Your task to perform on an android device: see creations saved in the google photos Image 0: 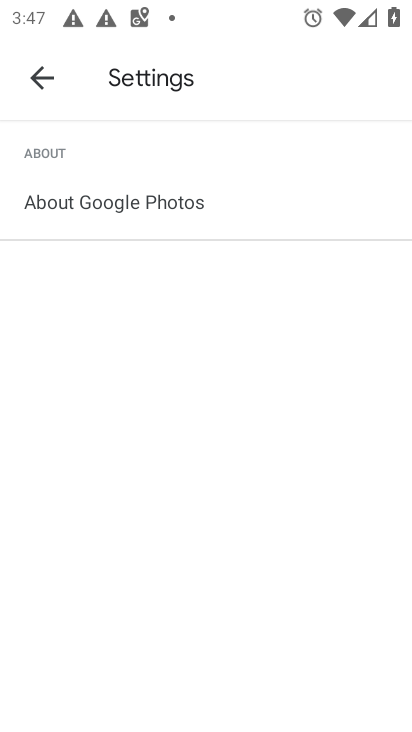
Step 0: press home button
Your task to perform on an android device: see creations saved in the google photos Image 1: 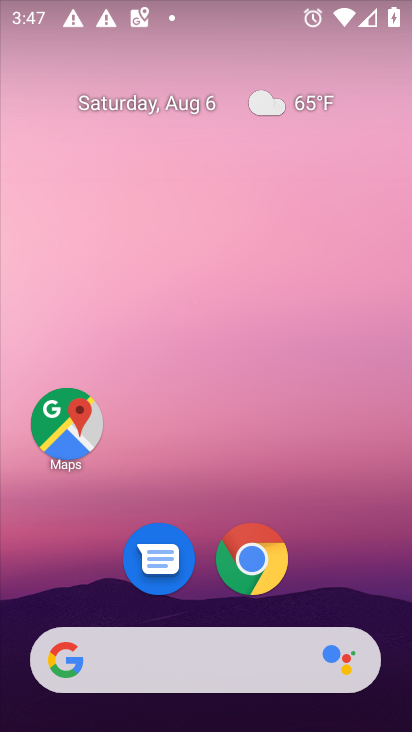
Step 1: drag from (337, 559) to (322, 46)
Your task to perform on an android device: see creations saved in the google photos Image 2: 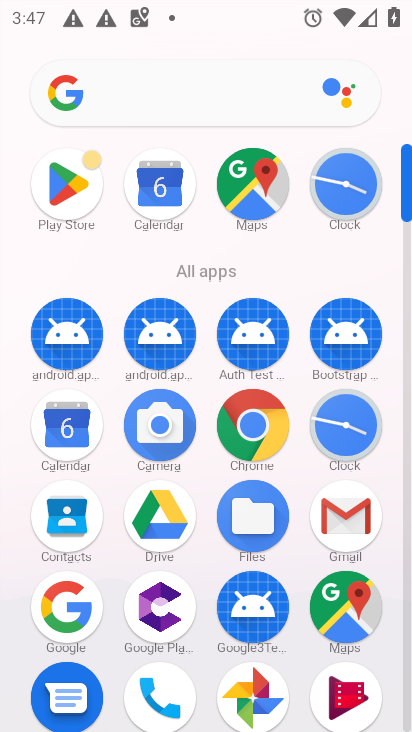
Step 2: click (254, 674)
Your task to perform on an android device: see creations saved in the google photos Image 3: 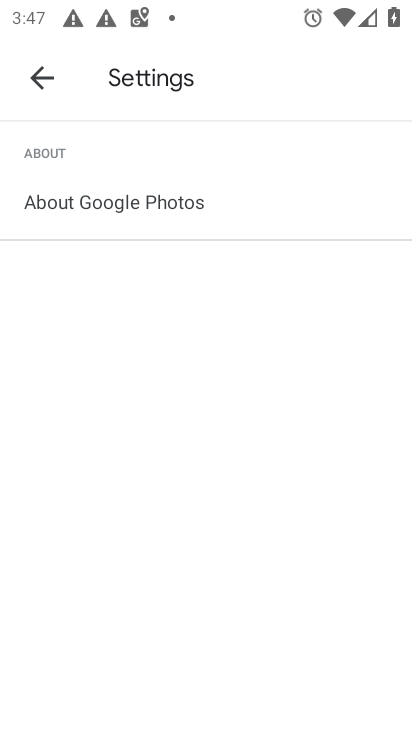
Step 3: click (40, 72)
Your task to perform on an android device: see creations saved in the google photos Image 4: 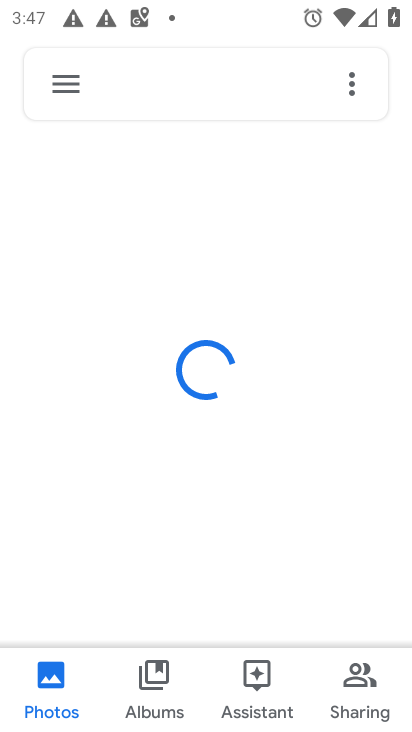
Step 4: click (194, 84)
Your task to perform on an android device: see creations saved in the google photos Image 5: 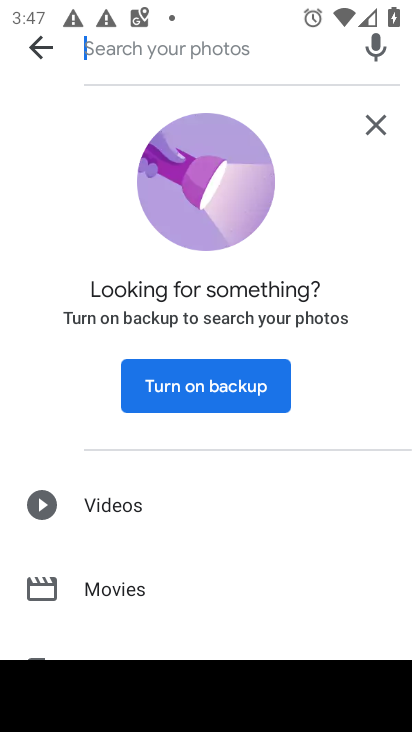
Step 5: click (47, 43)
Your task to perform on an android device: see creations saved in the google photos Image 6: 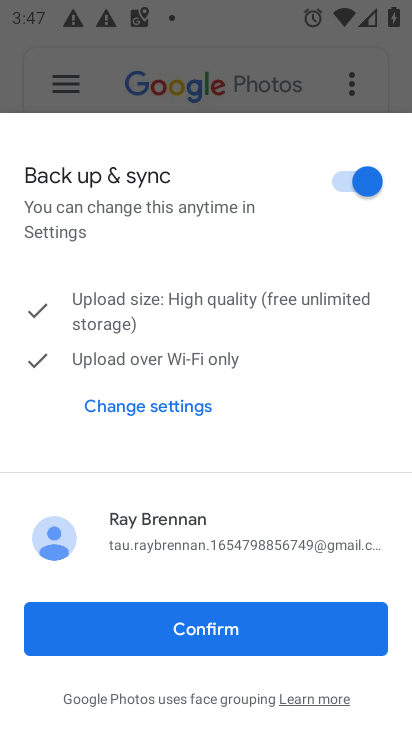
Step 6: click (258, 640)
Your task to perform on an android device: see creations saved in the google photos Image 7: 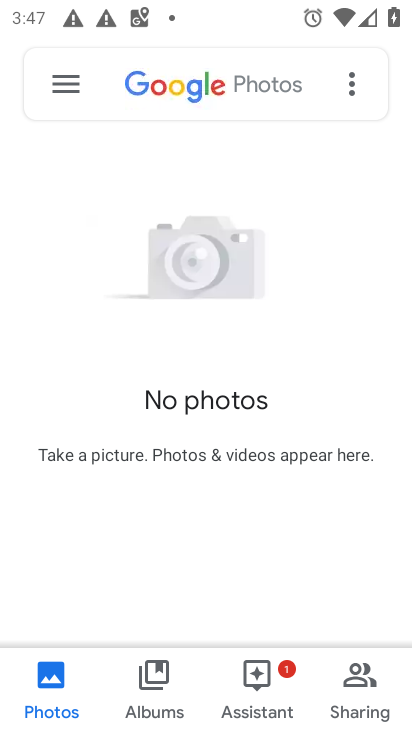
Step 7: click (231, 68)
Your task to perform on an android device: see creations saved in the google photos Image 8: 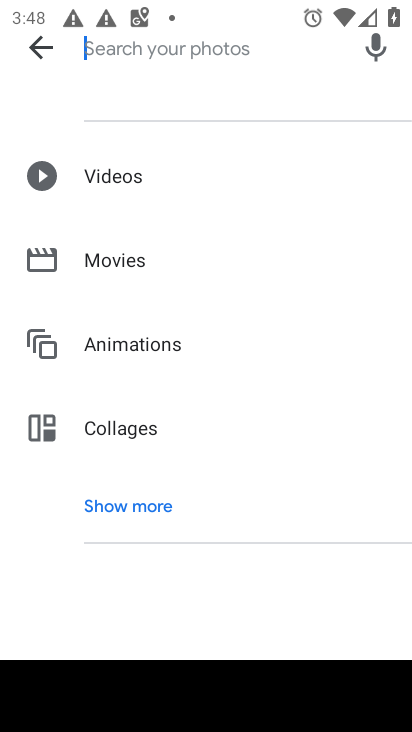
Step 8: click (141, 511)
Your task to perform on an android device: see creations saved in the google photos Image 9: 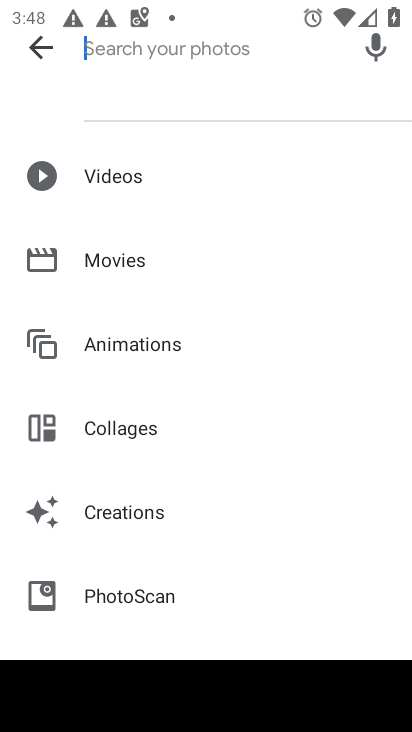
Step 9: click (140, 517)
Your task to perform on an android device: see creations saved in the google photos Image 10: 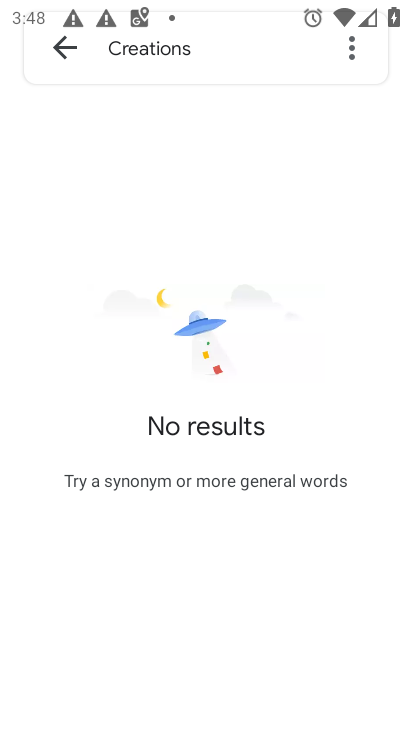
Step 10: task complete